Your task to perform on an android device: Clear the cart on newegg.com. Search for razer blade on newegg.com, select the first entry, and add it to the cart. Image 0: 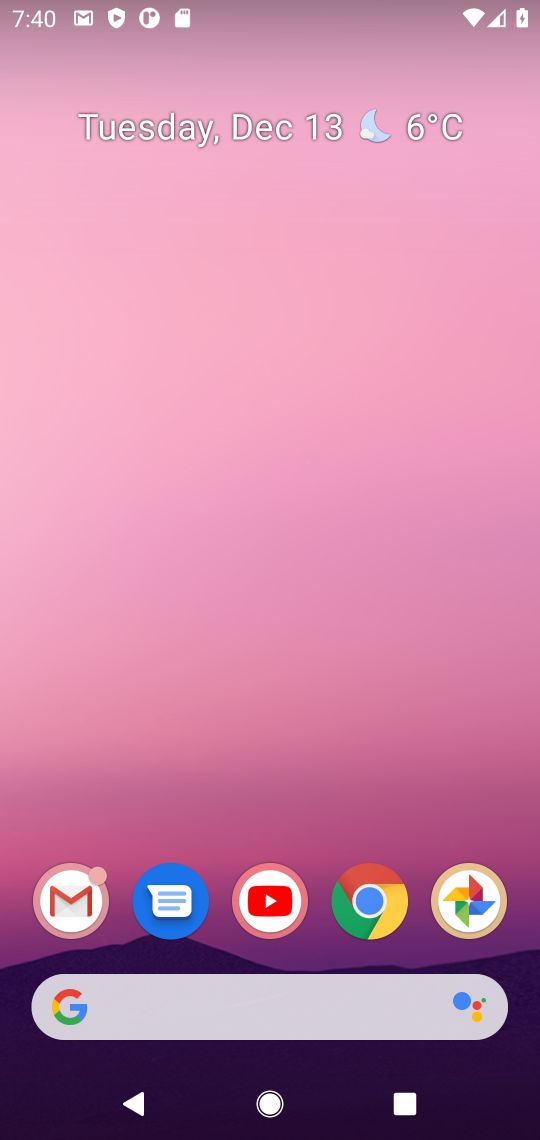
Step 0: click (350, 905)
Your task to perform on an android device: Clear the cart on newegg.com. Search for razer blade on newegg.com, select the first entry, and add it to the cart. Image 1: 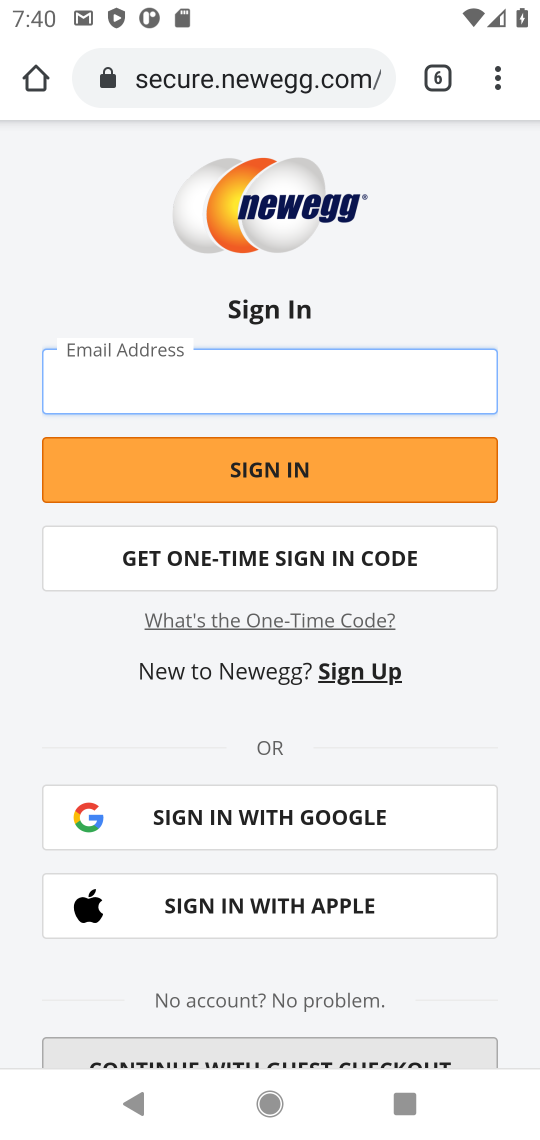
Step 1: press back button
Your task to perform on an android device: Clear the cart on newegg.com. Search for razer blade on newegg.com, select the first entry, and add it to the cart. Image 2: 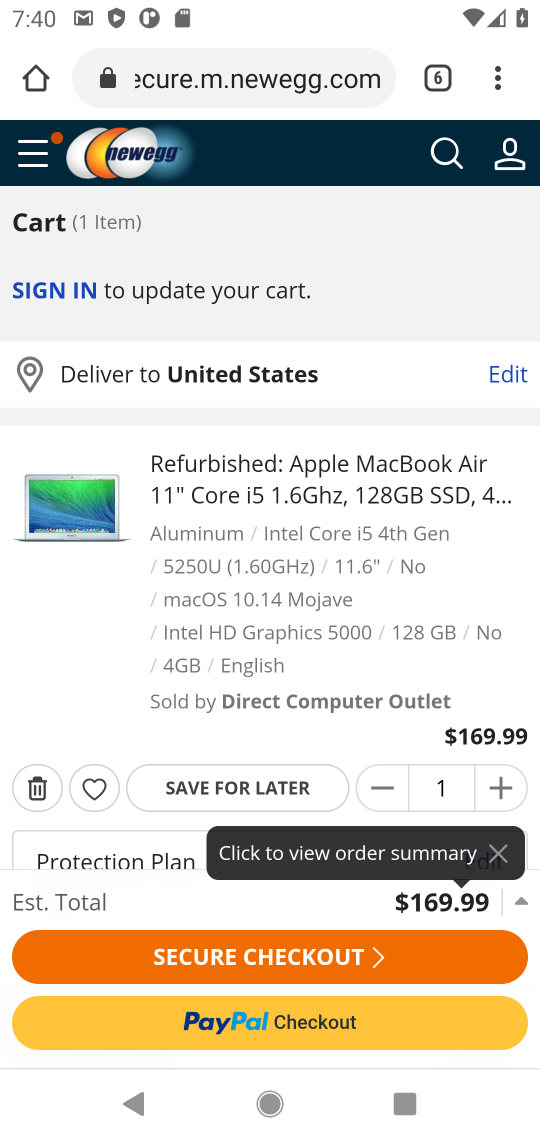
Step 2: click (431, 145)
Your task to perform on an android device: Clear the cart on newegg.com. Search for razer blade on newegg.com, select the first entry, and add it to the cart. Image 3: 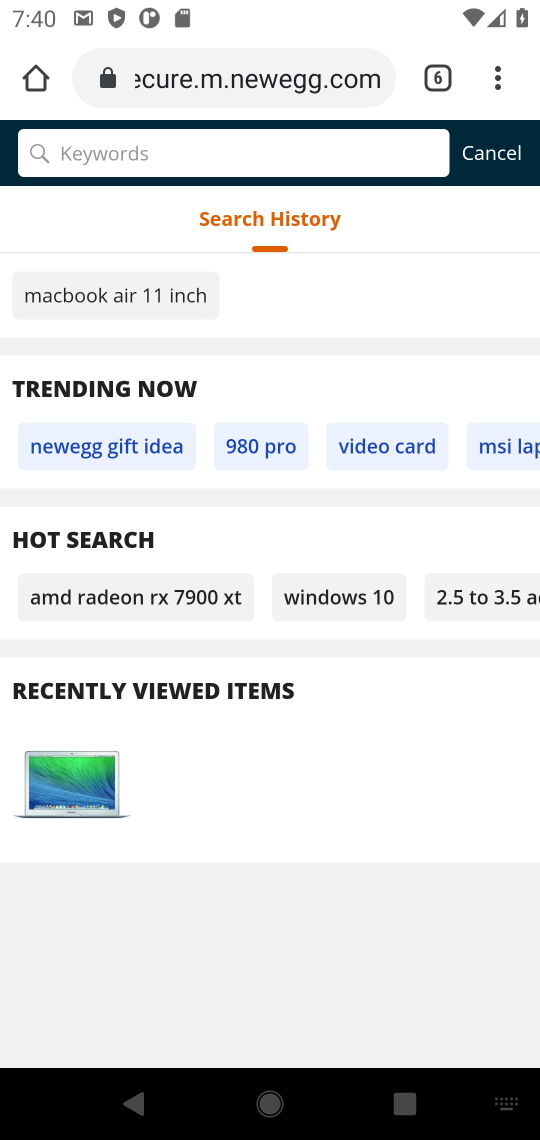
Step 3: type "razer blade"
Your task to perform on an android device: Clear the cart on newegg.com. Search for razer blade on newegg.com, select the first entry, and add it to the cart. Image 4: 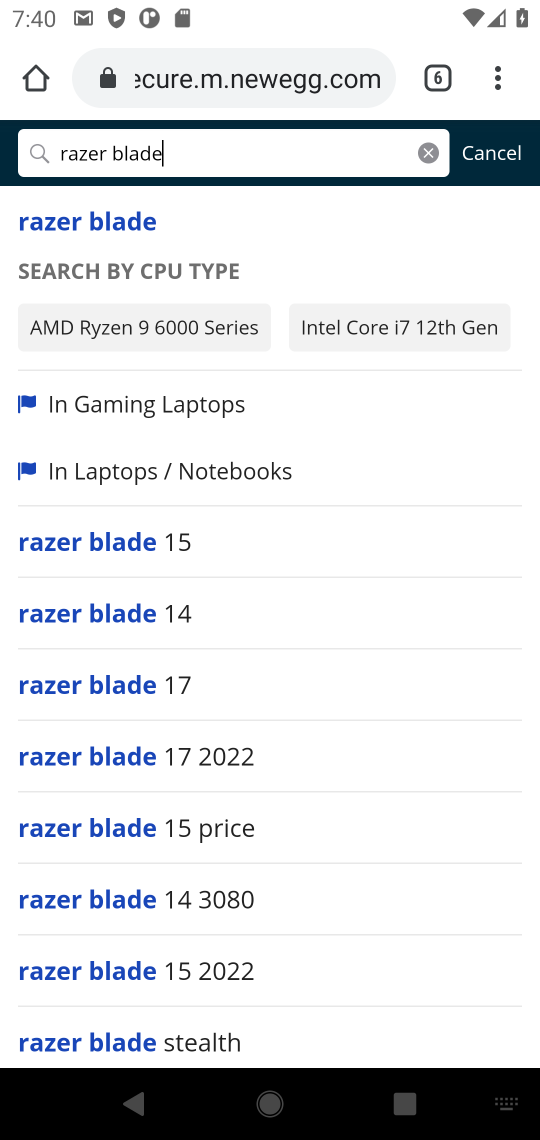
Step 4: click (73, 229)
Your task to perform on an android device: Clear the cart on newegg.com. Search for razer blade on newegg.com, select the first entry, and add it to the cart. Image 5: 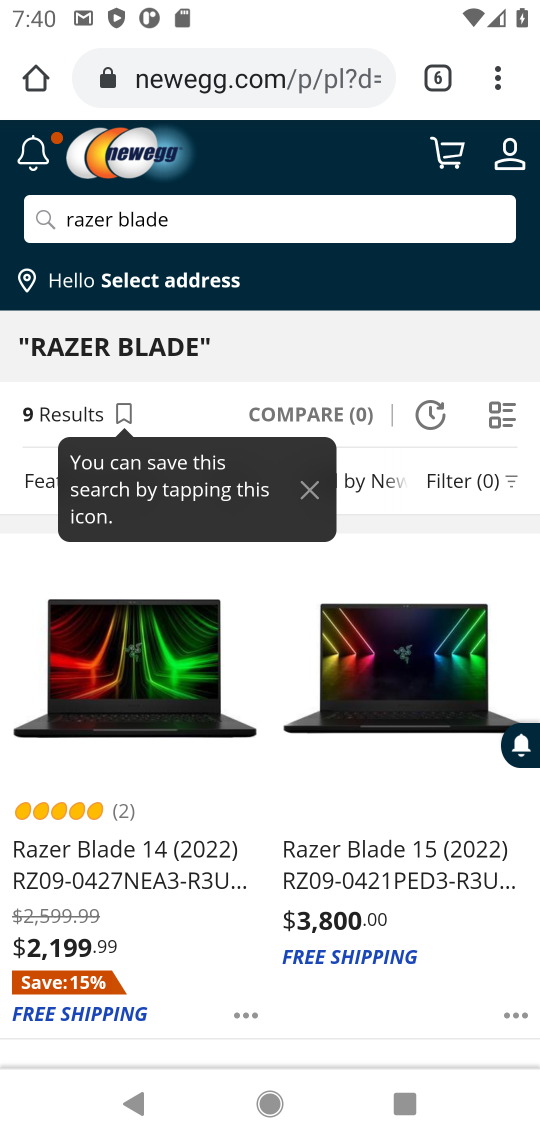
Step 5: click (96, 867)
Your task to perform on an android device: Clear the cart on newegg.com. Search for razer blade on newegg.com, select the first entry, and add it to the cart. Image 6: 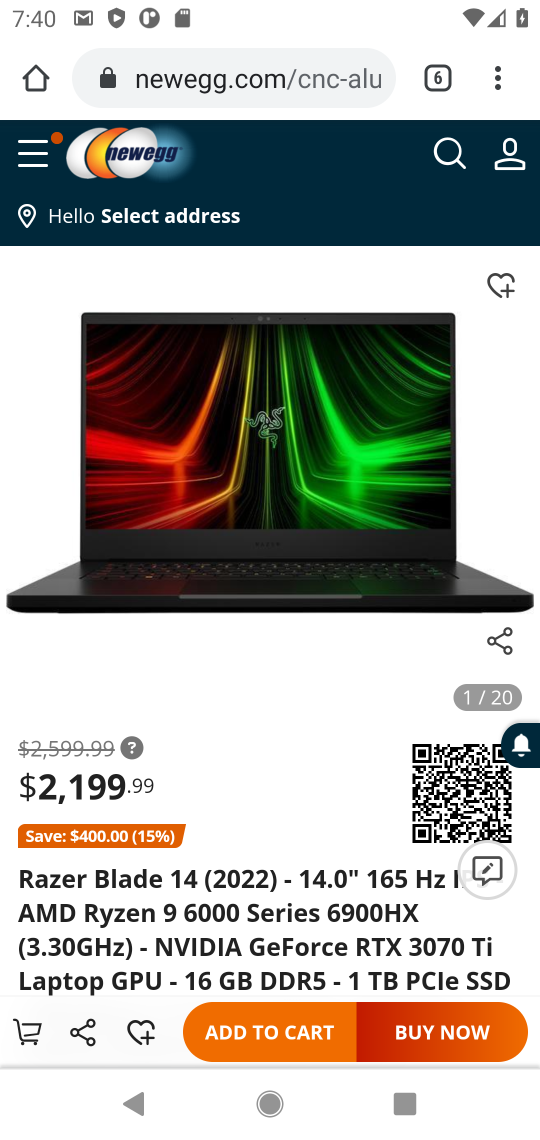
Step 6: click (25, 1035)
Your task to perform on an android device: Clear the cart on newegg.com. Search for razer blade on newegg.com, select the first entry, and add it to the cart. Image 7: 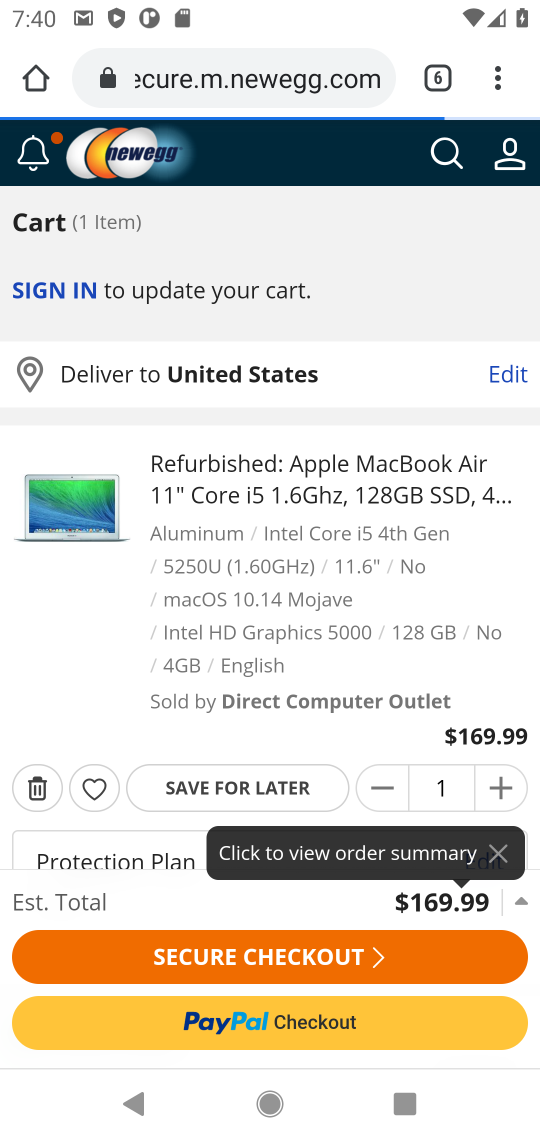
Step 7: click (28, 789)
Your task to perform on an android device: Clear the cart on newegg.com. Search for razer blade on newegg.com, select the first entry, and add it to the cart. Image 8: 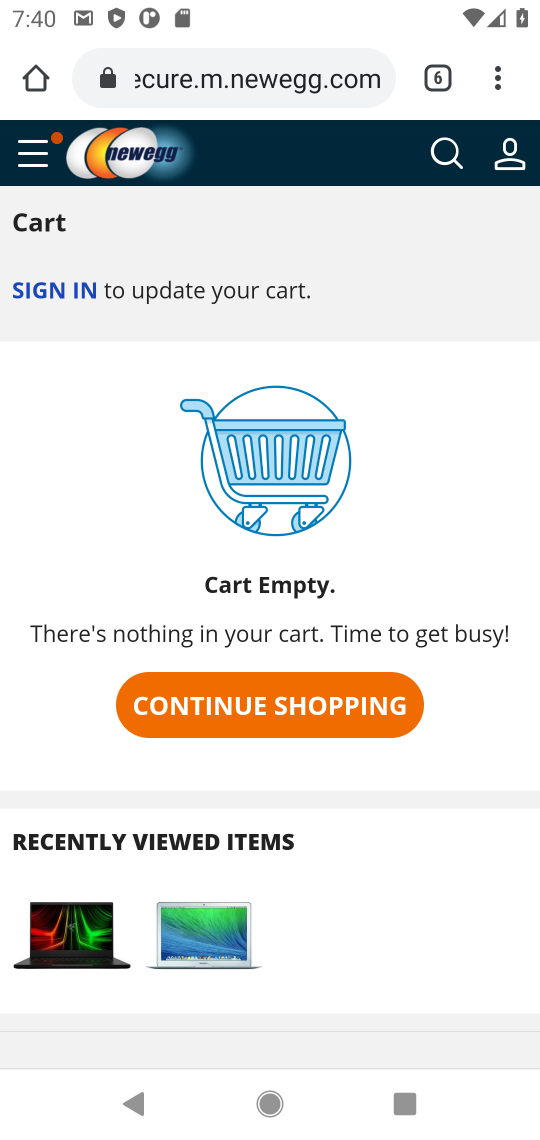
Step 8: click (440, 158)
Your task to perform on an android device: Clear the cart on newegg.com. Search for razer blade on newegg.com, select the first entry, and add it to the cart. Image 9: 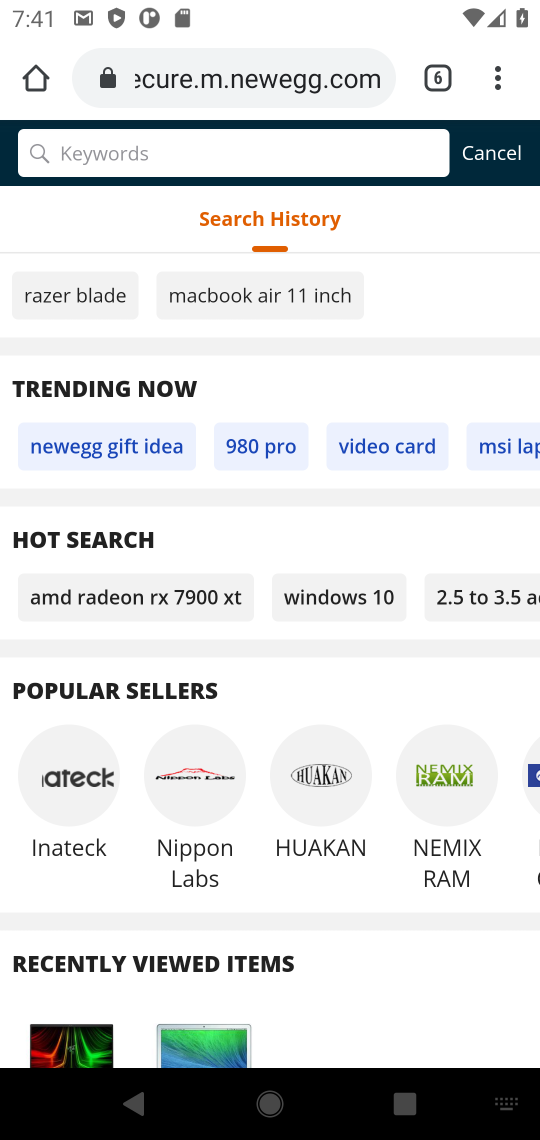
Step 9: type "razer blade"
Your task to perform on an android device: Clear the cart on newegg.com. Search for razer blade on newegg.com, select the first entry, and add it to the cart. Image 10: 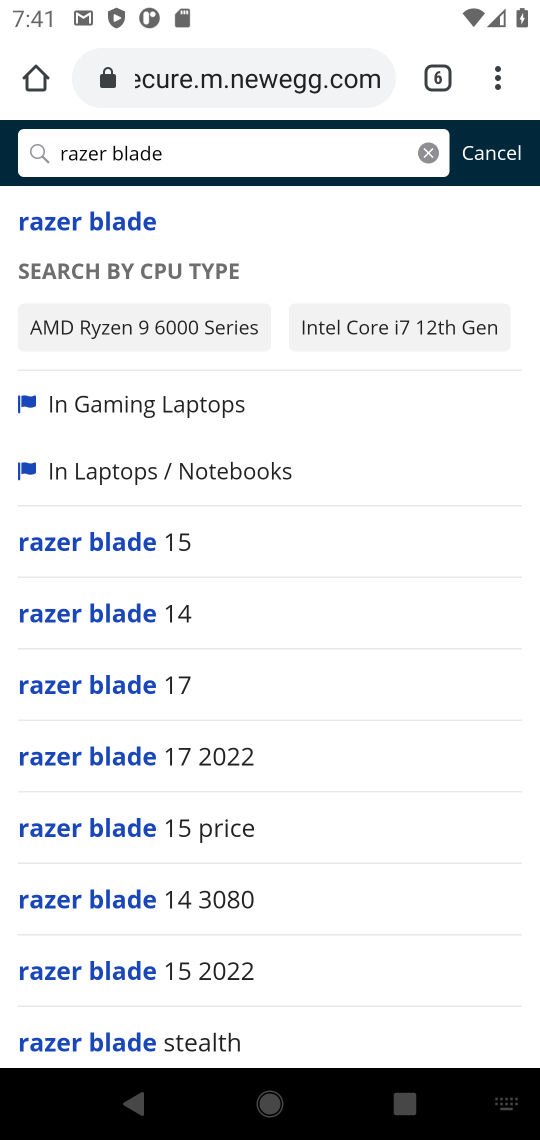
Step 10: click (114, 218)
Your task to perform on an android device: Clear the cart on newegg.com. Search for razer blade on newegg.com, select the first entry, and add it to the cart. Image 11: 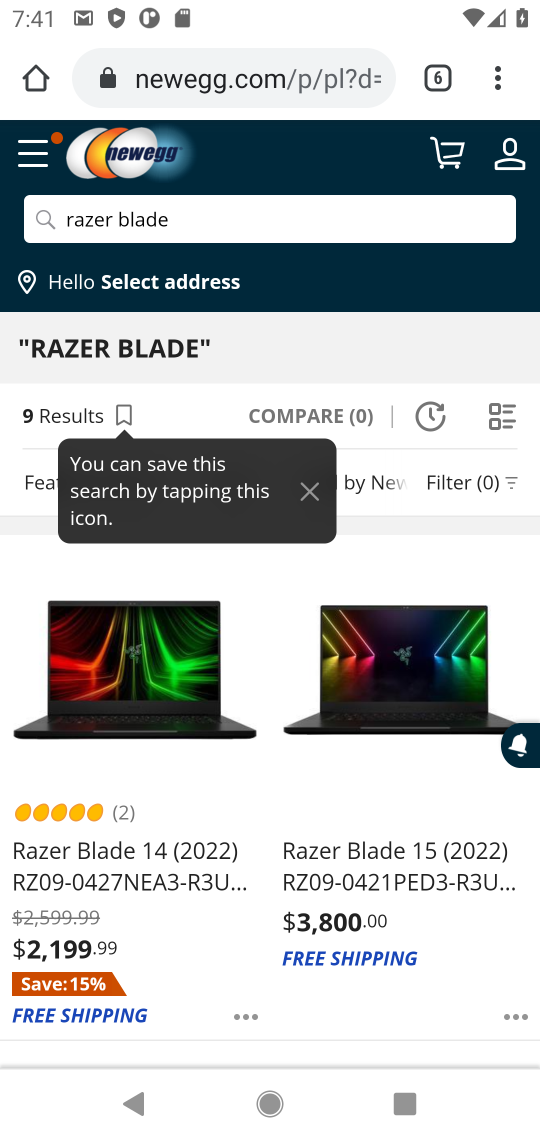
Step 11: click (96, 879)
Your task to perform on an android device: Clear the cart on newegg.com. Search for razer blade on newegg.com, select the first entry, and add it to the cart. Image 12: 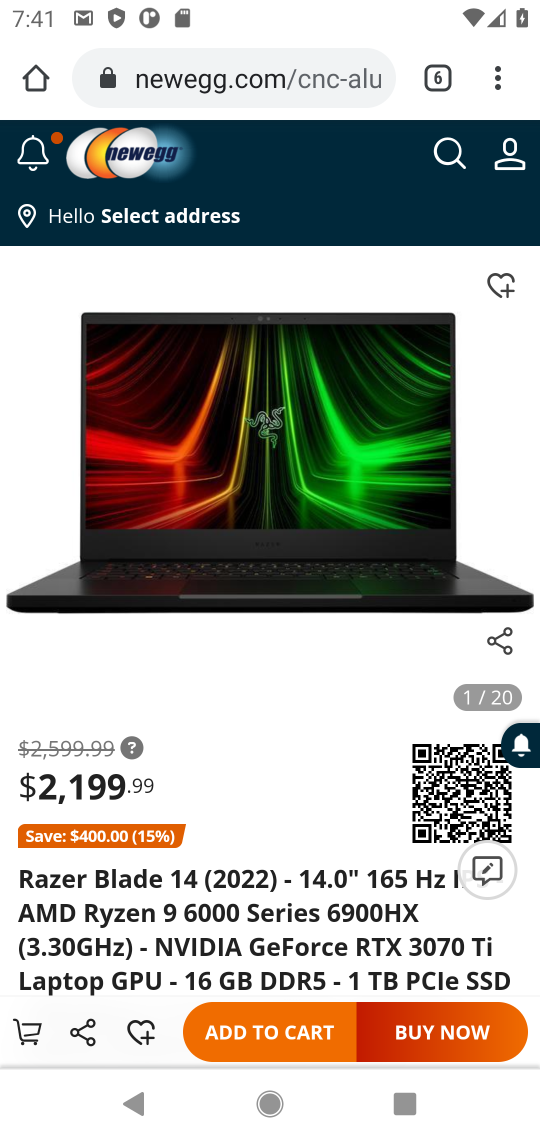
Step 12: click (250, 1031)
Your task to perform on an android device: Clear the cart on newegg.com. Search for razer blade on newegg.com, select the first entry, and add it to the cart. Image 13: 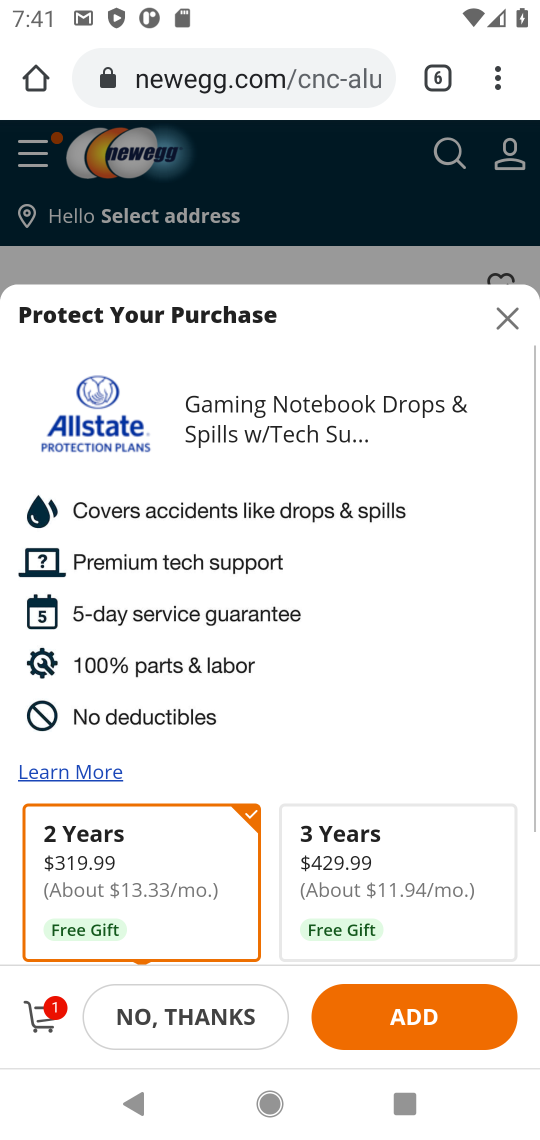
Step 13: click (234, 1003)
Your task to perform on an android device: Clear the cart on newegg.com. Search for razer blade on newegg.com, select the first entry, and add it to the cart. Image 14: 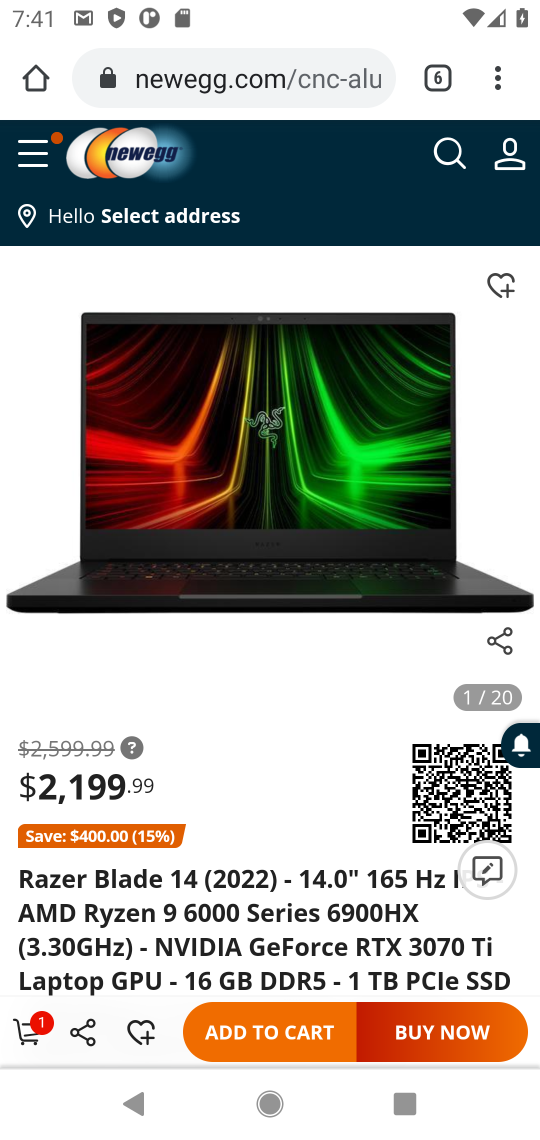
Step 14: task complete